Your task to perform on an android device: delete location history Image 0: 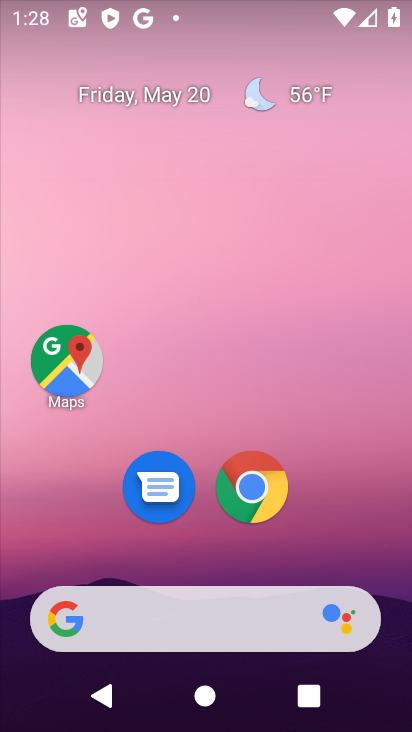
Step 0: press home button
Your task to perform on an android device: delete location history Image 1: 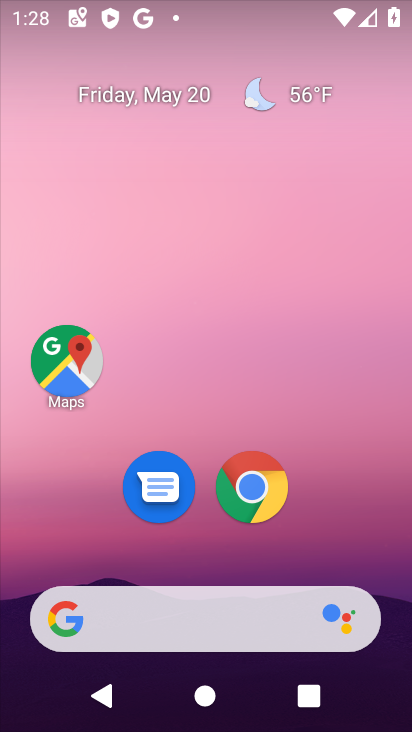
Step 1: drag from (221, 290) to (229, 100)
Your task to perform on an android device: delete location history Image 2: 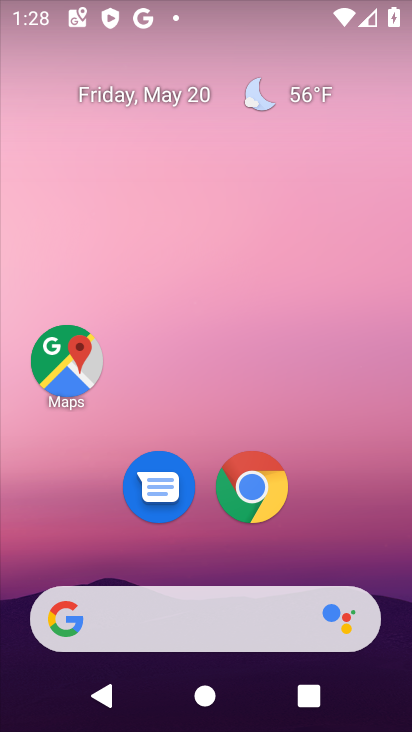
Step 2: drag from (209, 555) to (202, 80)
Your task to perform on an android device: delete location history Image 3: 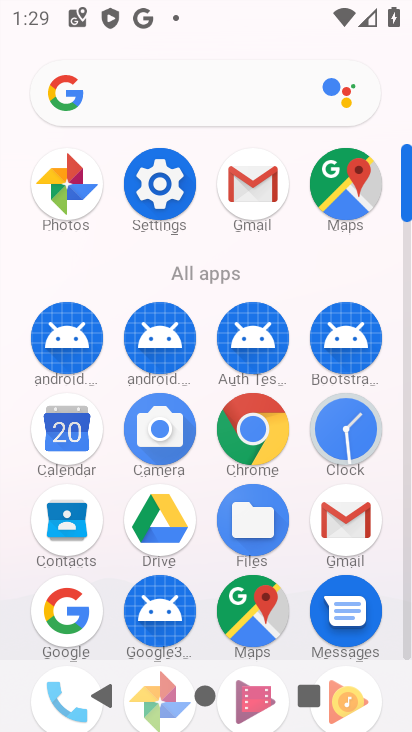
Step 3: click (347, 179)
Your task to perform on an android device: delete location history Image 4: 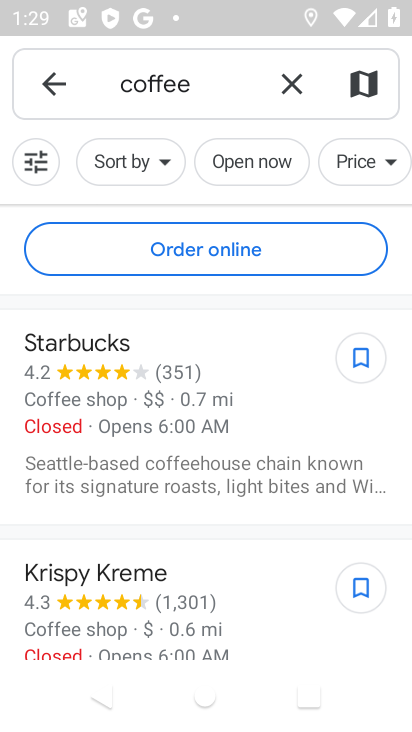
Step 4: click (61, 90)
Your task to perform on an android device: delete location history Image 5: 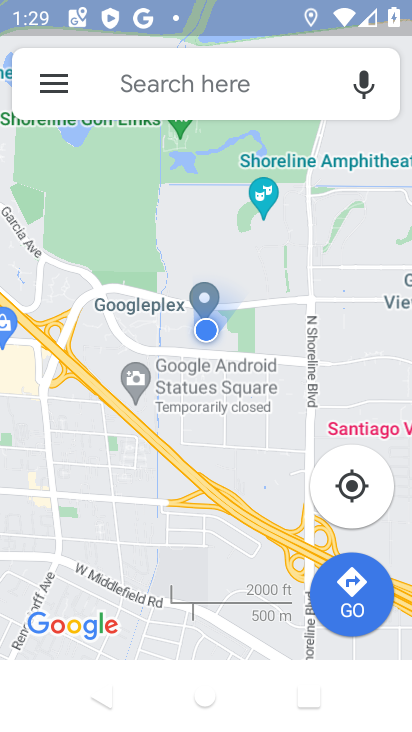
Step 5: click (54, 80)
Your task to perform on an android device: delete location history Image 6: 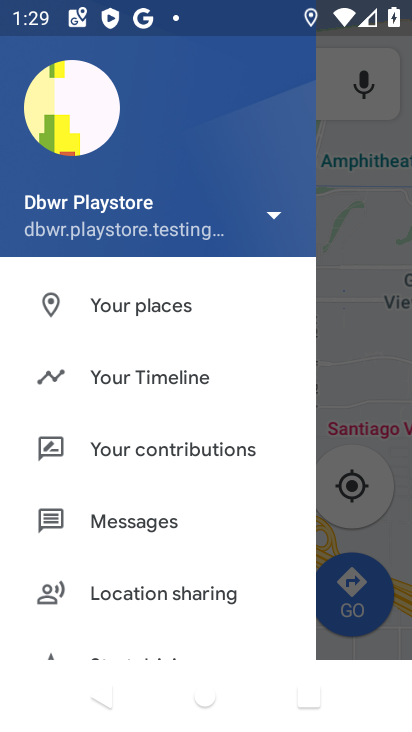
Step 6: click (169, 533)
Your task to perform on an android device: delete location history Image 7: 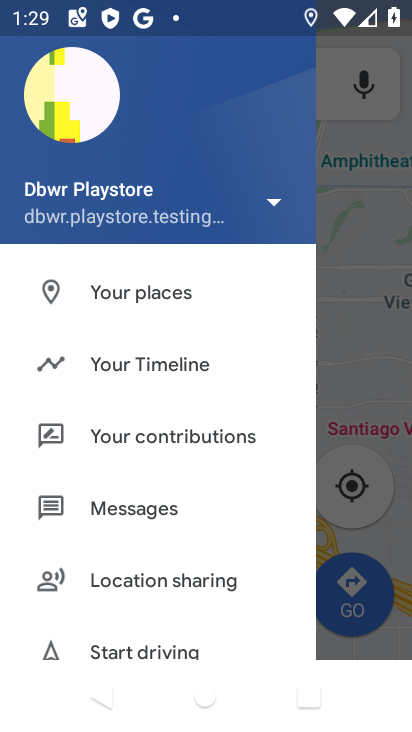
Step 7: click (72, 351)
Your task to perform on an android device: delete location history Image 8: 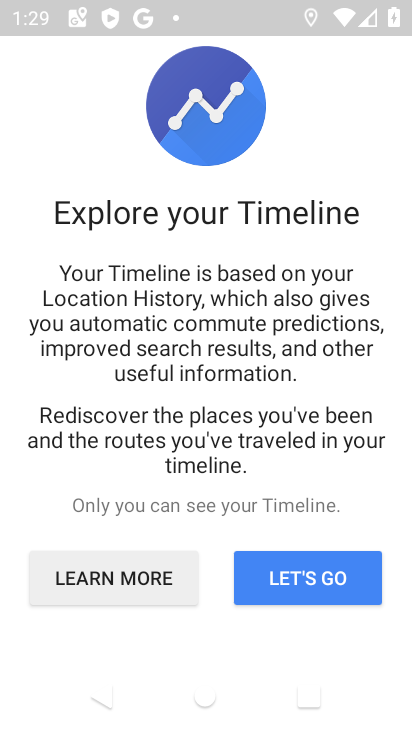
Step 8: click (298, 574)
Your task to perform on an android device: delete location history Image 9: 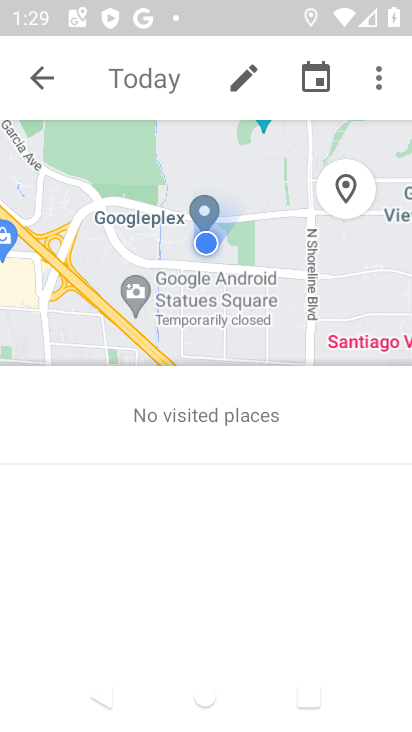
Step 9: click (384, 70)
Your task to perform on an android device: delete location history Image 10: 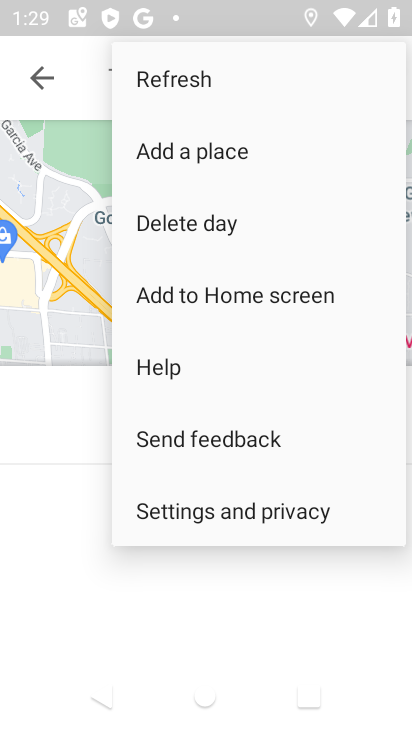
Step 10: click (341, 501)
Your task to perform on an android device: delete location history Image 11: 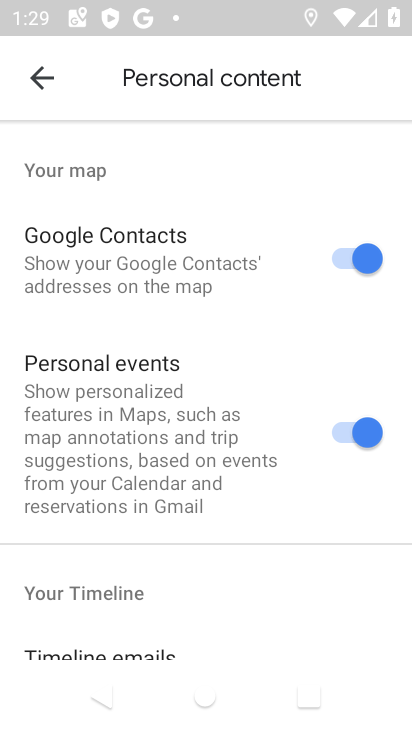
Step 11: drag from (190, 613) to (224, 98)
Your task to perform on an android device: delete location history Image 12: 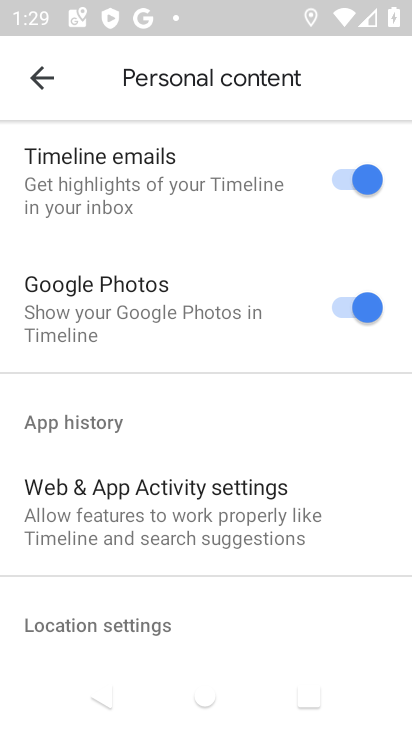
Step 12: drag from (216, 588) to (237, 132)
Your task to perform on an android device: delete location history Image 13: 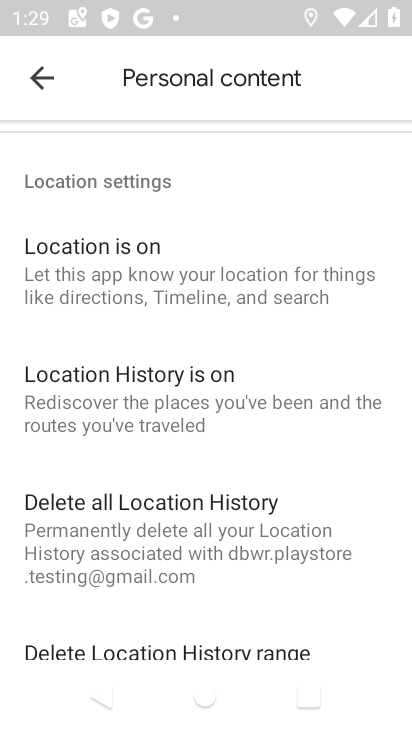
Step 13: click (236, 522)
Your task to perform on an android device: delete location history Image 14: 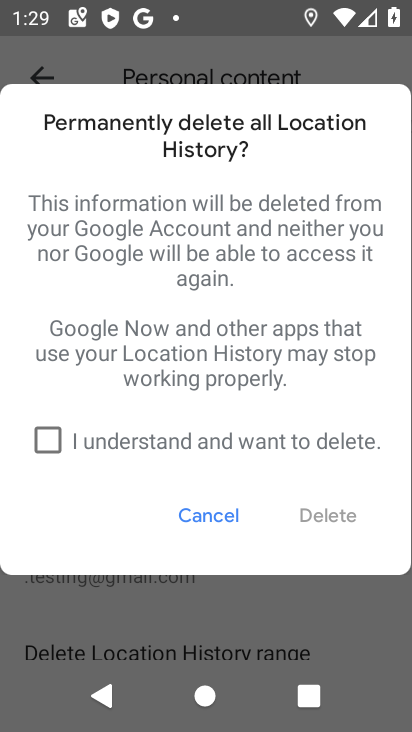
Step 14: click (49, 433)
Your task to perform on an android device: delete location history Image 15: 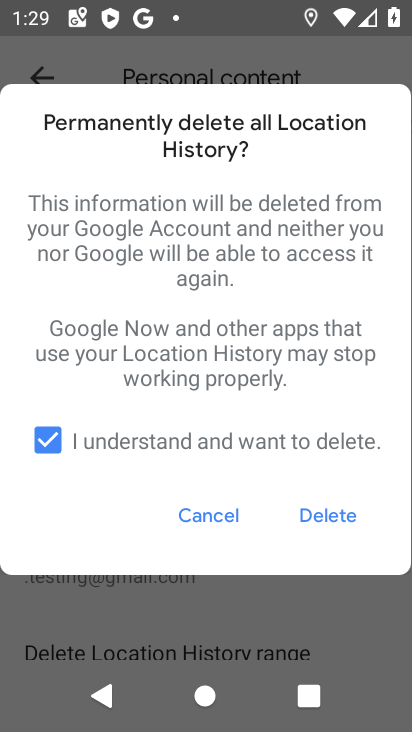
Step 15: click (327, 520)
Your task to perform on an android device: delete location history Image 16: 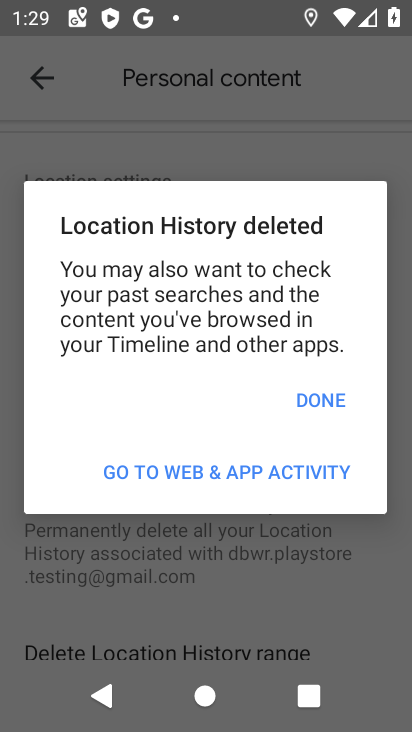
Step 16: click (322, 398)
Your task to perform on an android device: delete location history Image 17: 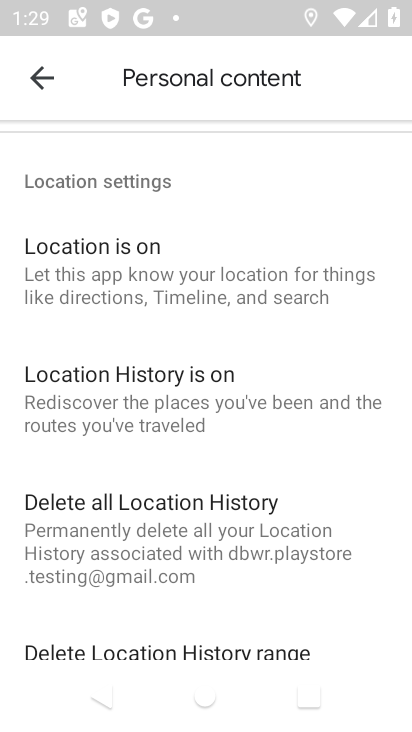
Step 17: task complete